Your task to perform on an android device: change the clock display to analog Image 0: 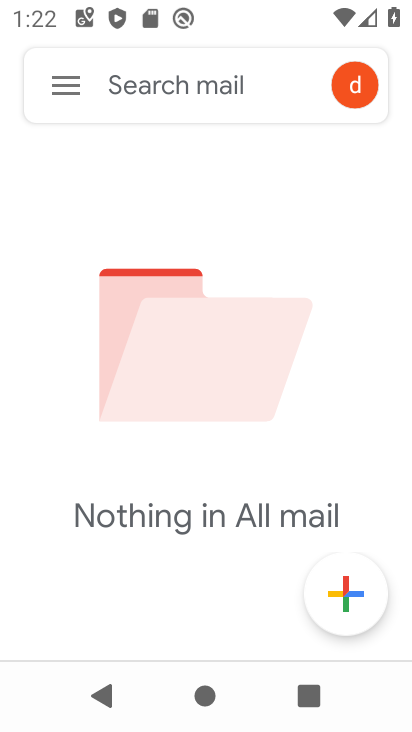
Step 0: press home button
Your task to perform on an android device: change the clock display to analog Image 1: 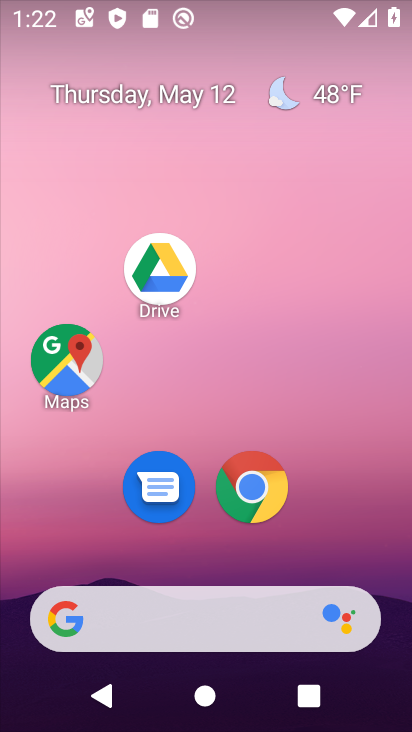
Step 1: drag from (225, 564) to (152, 36)
Your task to perform on an android device: change the clock display to analog Image 2: 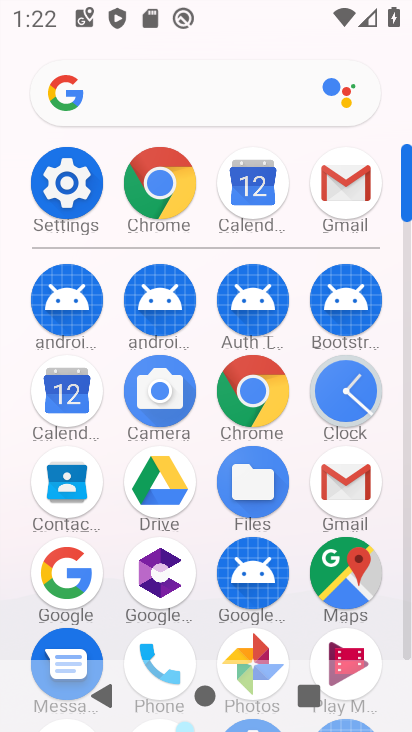
Step 2: click (359, 420)
Your task to perform on an android device: change the clock display to analog Image 3: 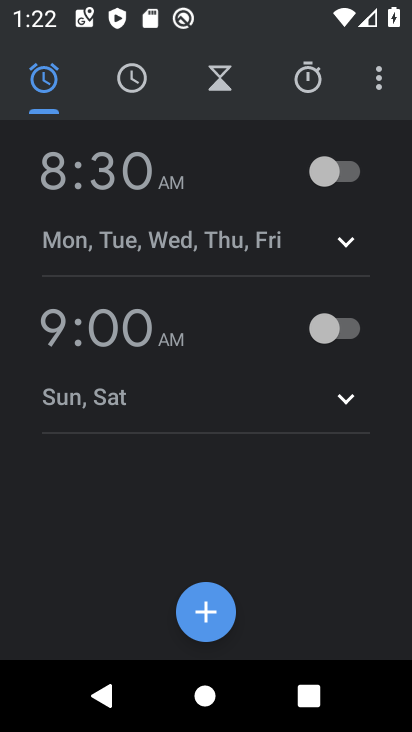
Step 3: click (381, 86)
Your task to perform on an android device: change the clock display to analog Image 4: 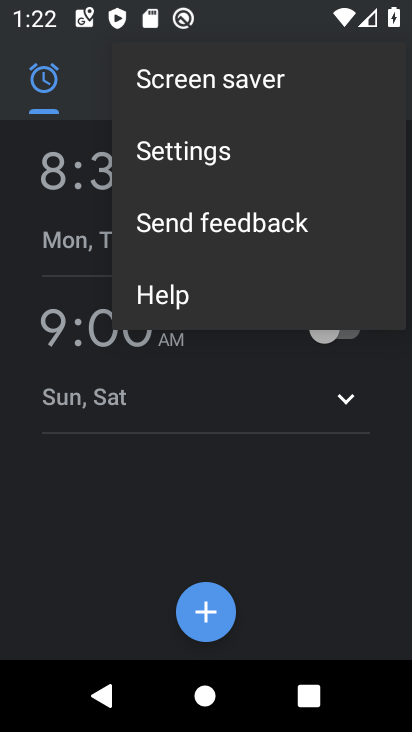
Step 4: click (235, 148)
Your task to perform on an android device: change the clock display to analog Image 5: 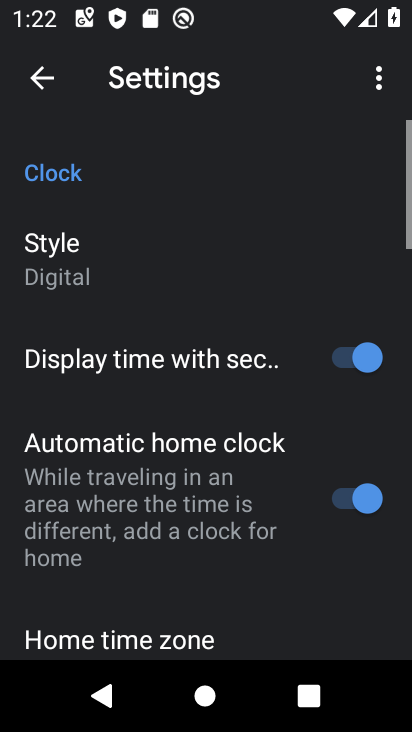
Step 5: click (84, 250)
Your task to perform on an android device: change the clock display to analog Image 6: 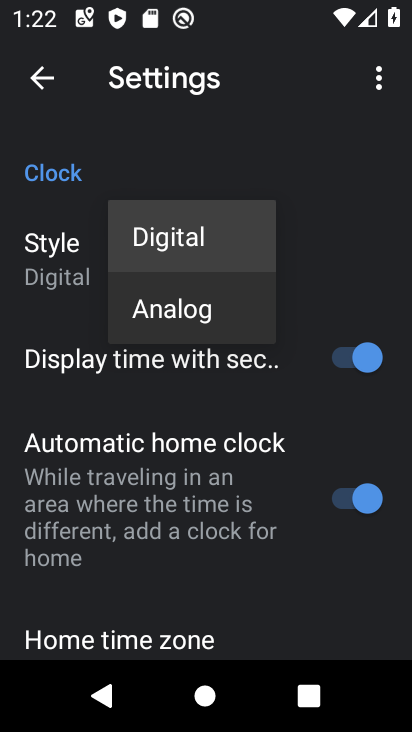
Step 6: click (170, 316)
Your task to perform on an android device: change the clock display to analog Image 7: 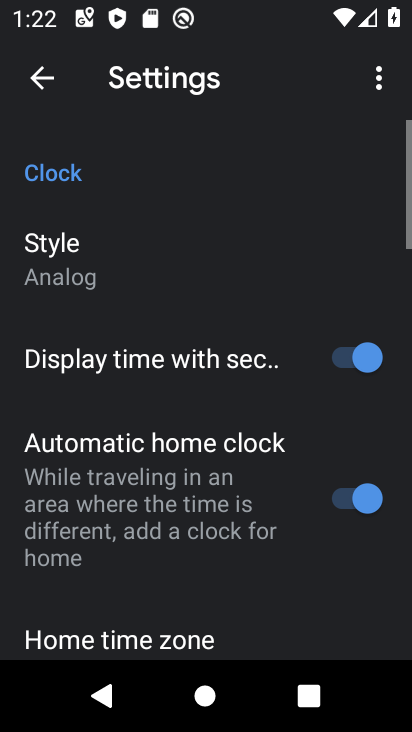
Step 7: task complete